Your task to perform on an android device: Go to notification settings Image 0: 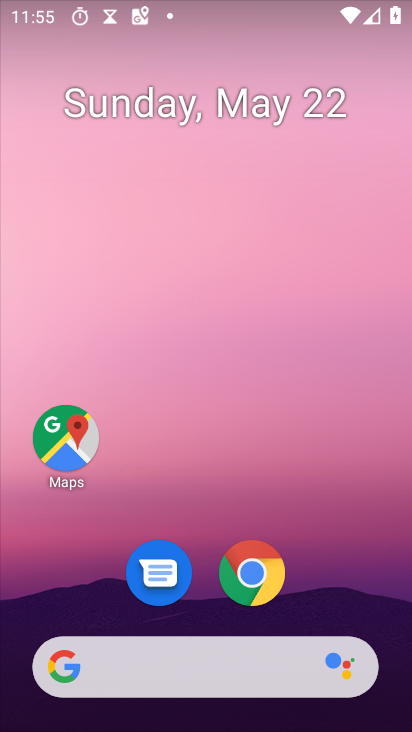
Step 0: press home button
Your task to perform on an android device: Go to notification settings Image 1: 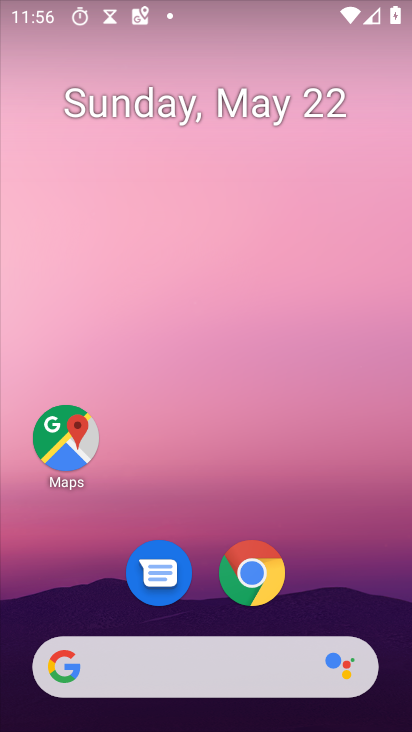
Step 1: drag from (153, 671) to (295, 177)
Your task to perform on an android device: Go to notification settings Image 2: 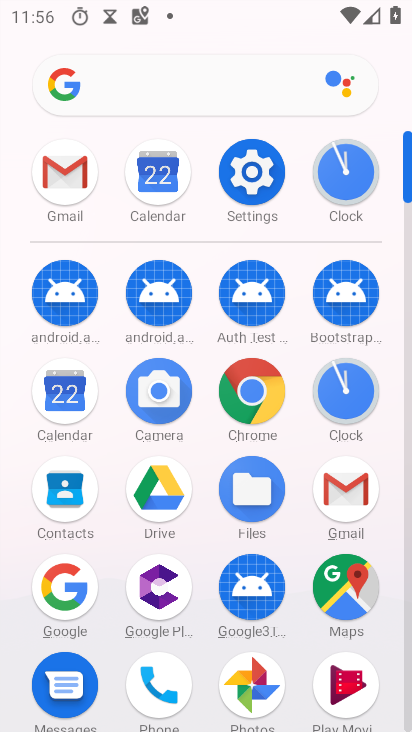
Step 2: click (254, 181)
Your task to perform on an android device: Go to notification settings Image 3: 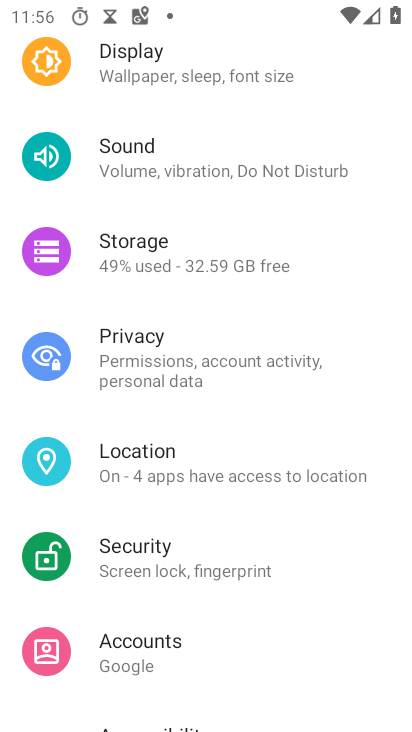
Step 3: drag from (311, 117) to (252, 560)
Your task to perform on an android device: Go to notification settings Image 4: 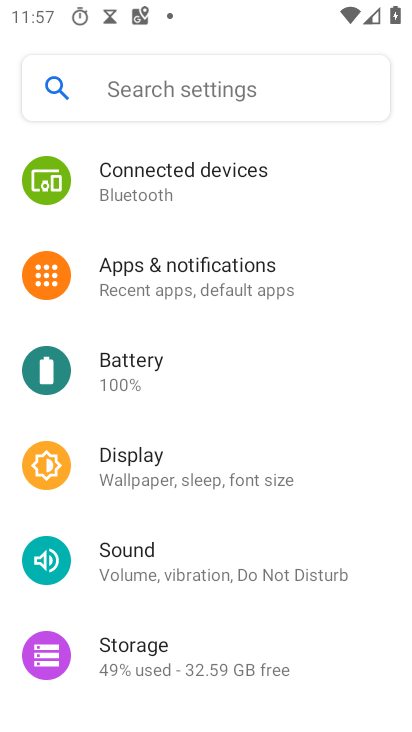
Step 4: click (240, 271)
Your task to perform on an android device: Go to notification settings Image 5: 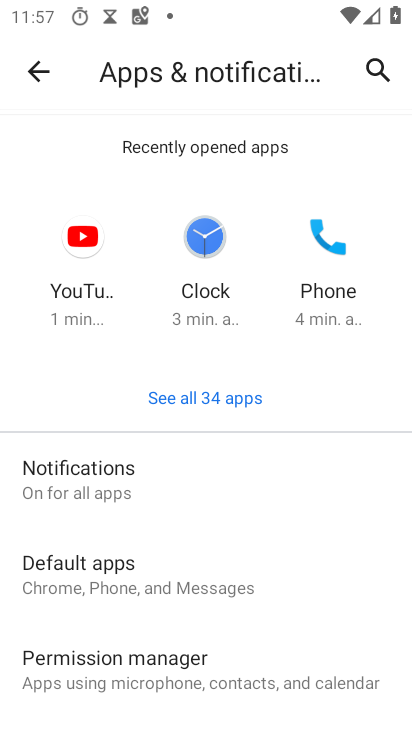
Step 5: click (71, 492)
Your task to perform on an android device: Go to notification settings Image 6: 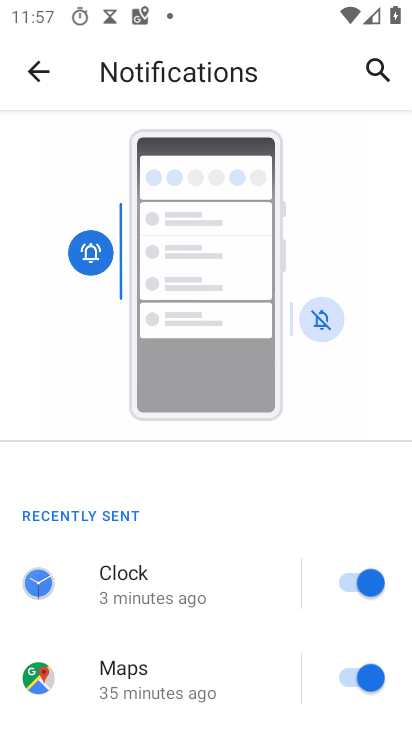
Step 6: task complete